Your task to perform on an android device: Open Maps and search for coffee Image 0: 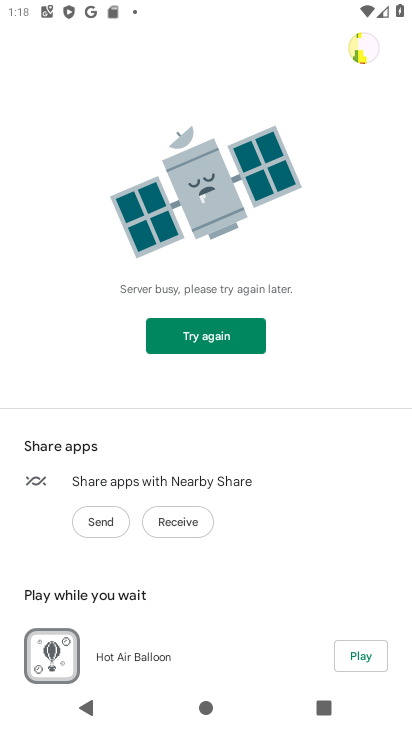
Step 0: press home button
Your task to perform on an android device: Open Maps and search for coffee Image 1: 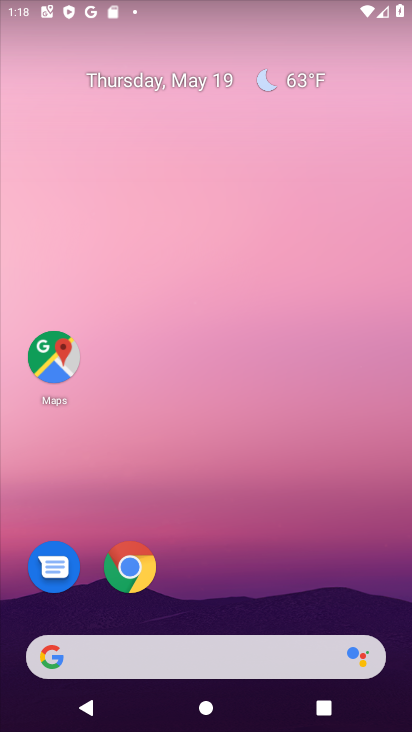
Step 1: drag from (289, 522) to (291, 138)
Your task to perform on an android device: Open Maps and search for coffee Image 2: 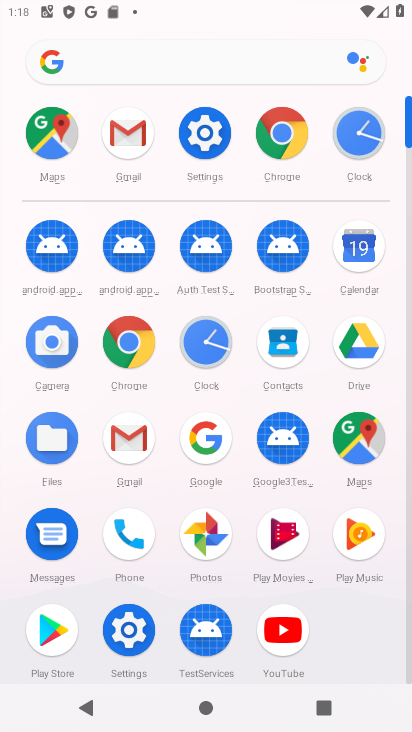
Step 2: click (345, 444)
Your task to perform on an android device: Open Maps and search for coffee Image 3: 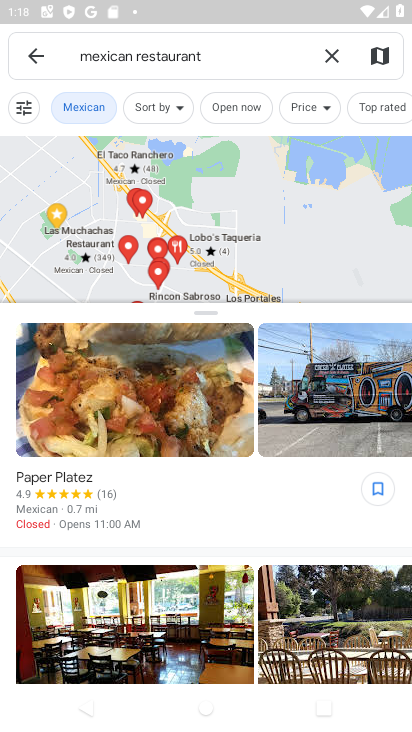
Step 3: click (337, 59)
Your task to perform on an android device: Open Maps and search for coffee Image 4: 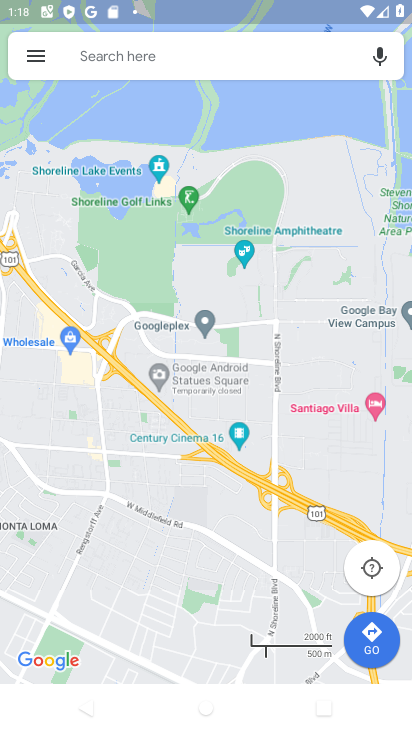
Step 4: click (256, 41)
Your task to perform on an android device: Open Maps and search for coffee Image 5: 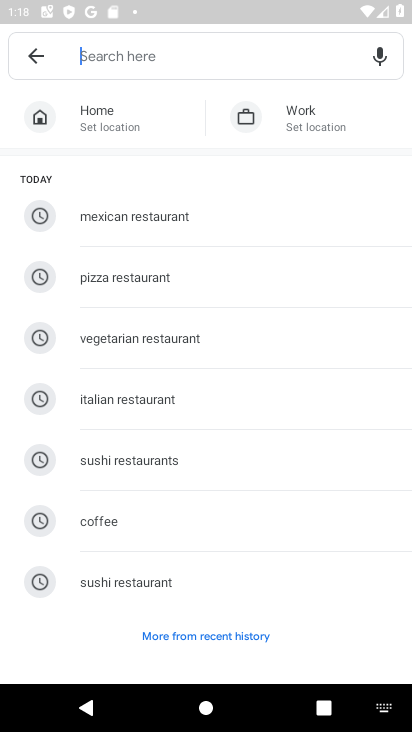
Step 5: click (104, 532)
Your task to perform on an android device: Open Maps and search for coffee Image 6: 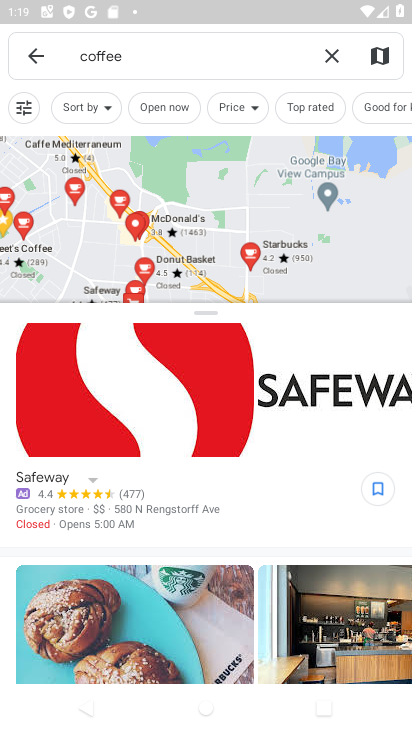
Step 6: task complete